Your task to perform on an android device: turn pop-ups off in chrome Image 0: 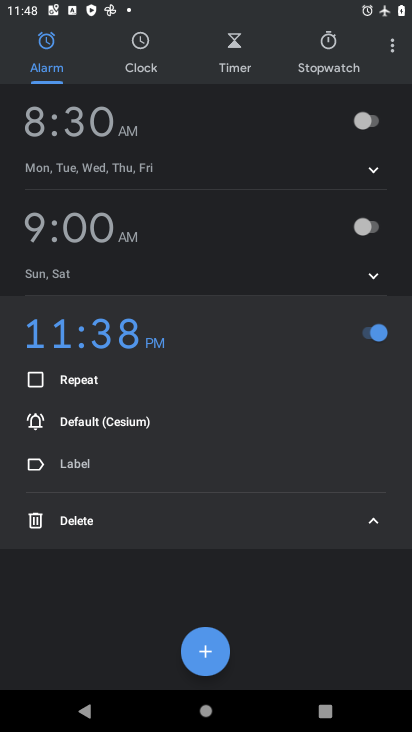
Step 0: press home button
Your task to perform on an android device: turn pop-ups off in chrome Image 1: 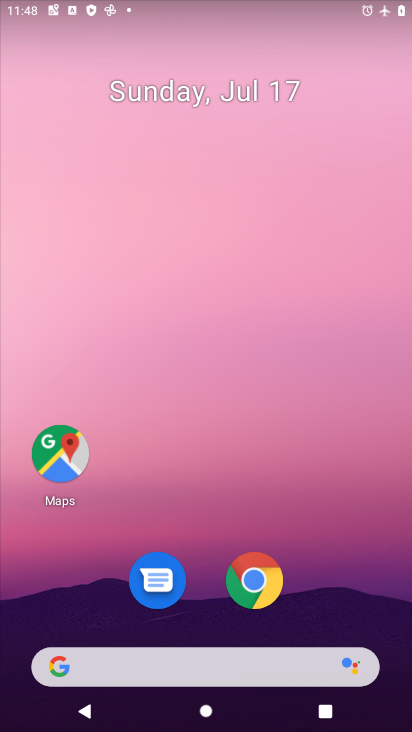
Step 1: drag from (188, 533) to (188, 264)
Your task to perform on an android device: turn pop-ups off in chrome Image 2: 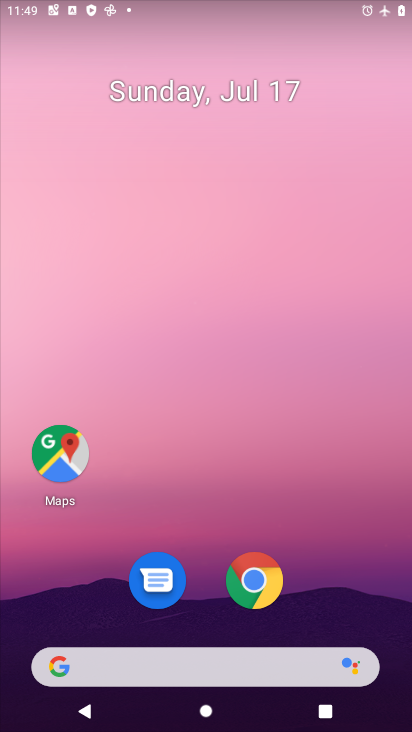
Step 2: drag from (185, 659) to (202, 234)
Your task to perform on an android device: turn pop-ups off in chrome Image 3: 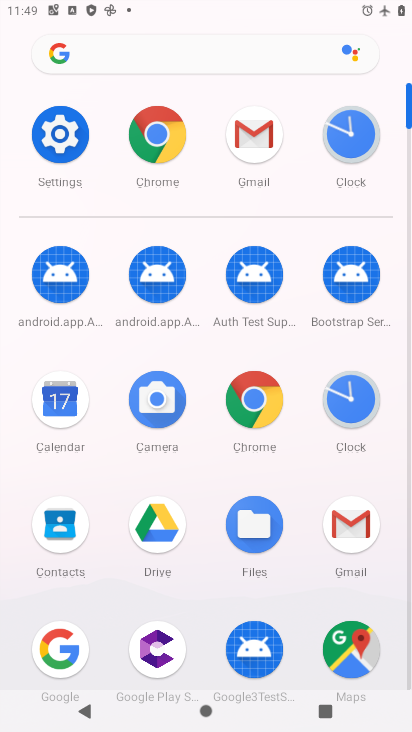
Step 3: click (257, 425)
Your task to perform on an android device: turn pop-ups off in chrome Image 4: 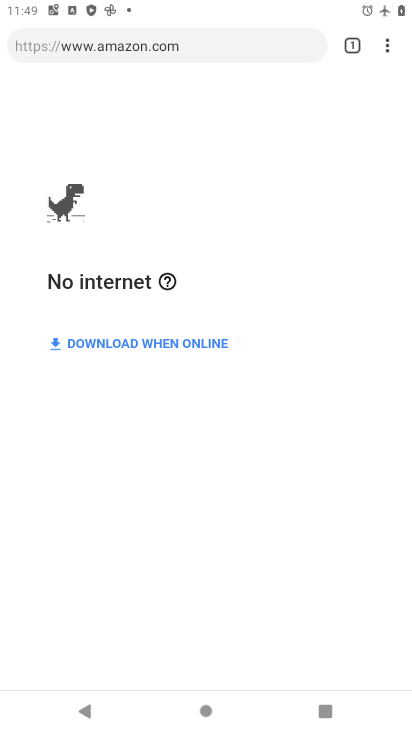
Step 4: click (392, 47)
Your task to perform on an android device: turn pop-ups off in chrome Image 5: 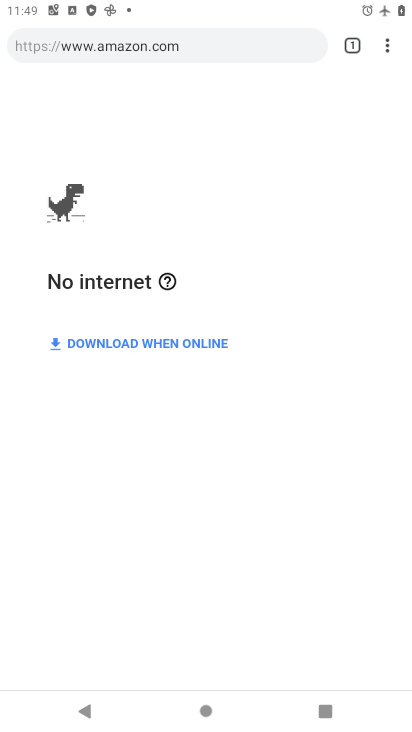
Step 5: click (392, 54)
Your task to perform on an android device: turn pop-ups off in chrome Image 6: 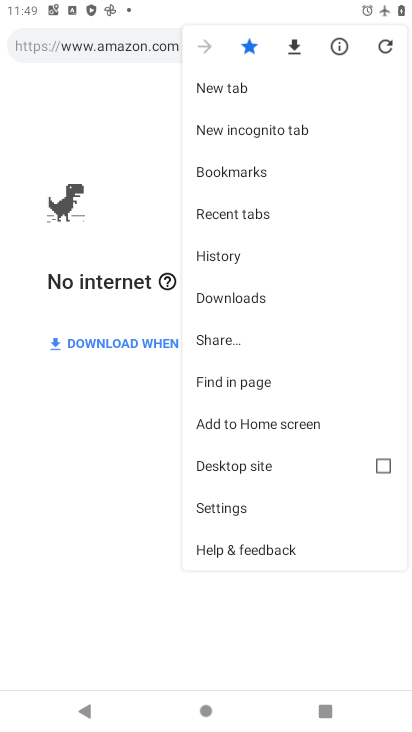
Step 6: click (234, 514)
Your task to perform on an android device: turn pop-ups off in chrome Image 7: 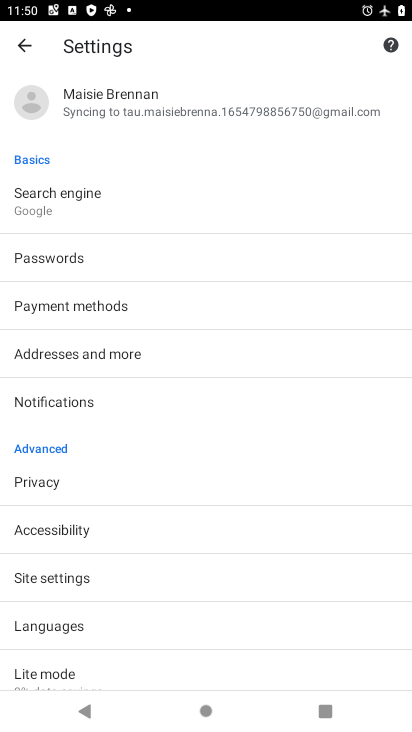
Step 7: click (67, 581)
Your task to perform on an android device: turn pop-ups off in chrome Image 8: 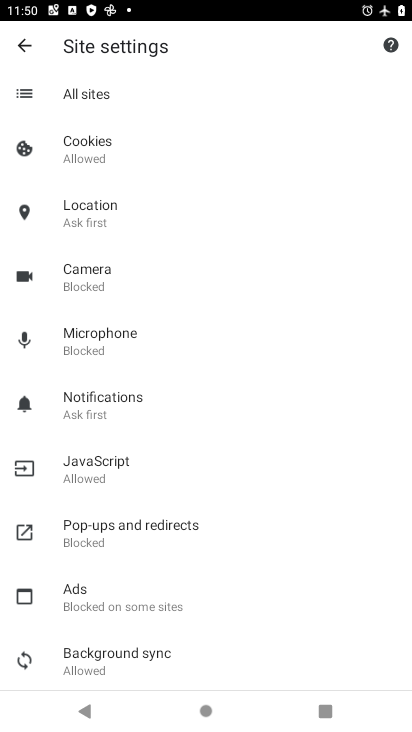
Step 8: click (141, 540)
Your task to perform on an android device: turn pop-ups off in chrome Image 9: 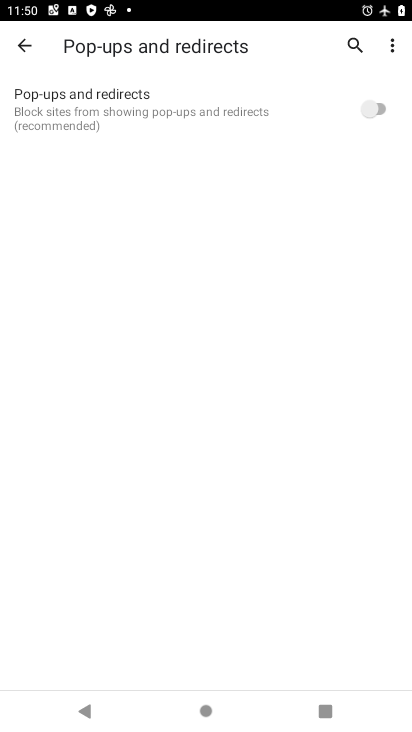
Step 9: task complete